Your task to perform on an android device: Clear the cart on ebay.com. Image 0: 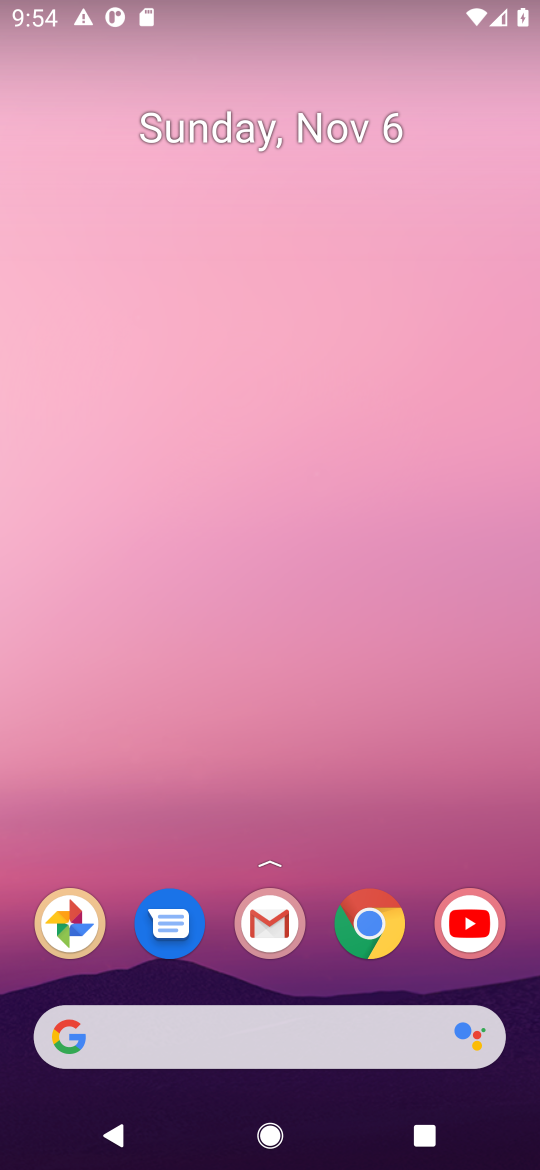
Step 0: click (363, 933)
Your task to perform on an android device: Clear the cart on ebay.com. Image 1: 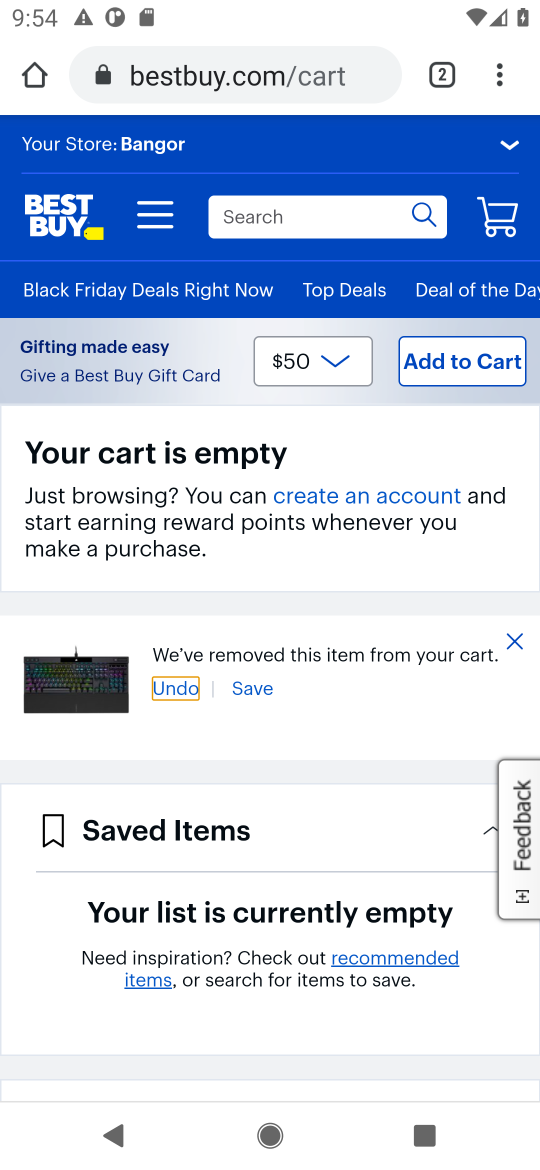
Step 1: click (172, 78)
Your task to perform on an android device: Clear the cart on ebay.com. Image 2: 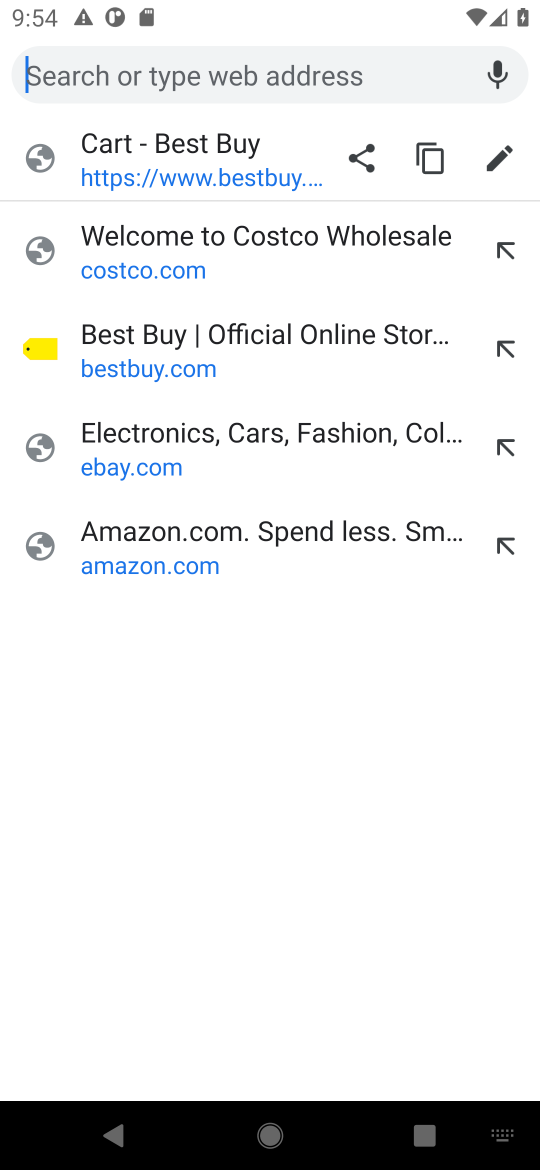
Step 2: click (145, 463)
Your task to perform on an android device: Clear the cart on ebay.com. Image 3: 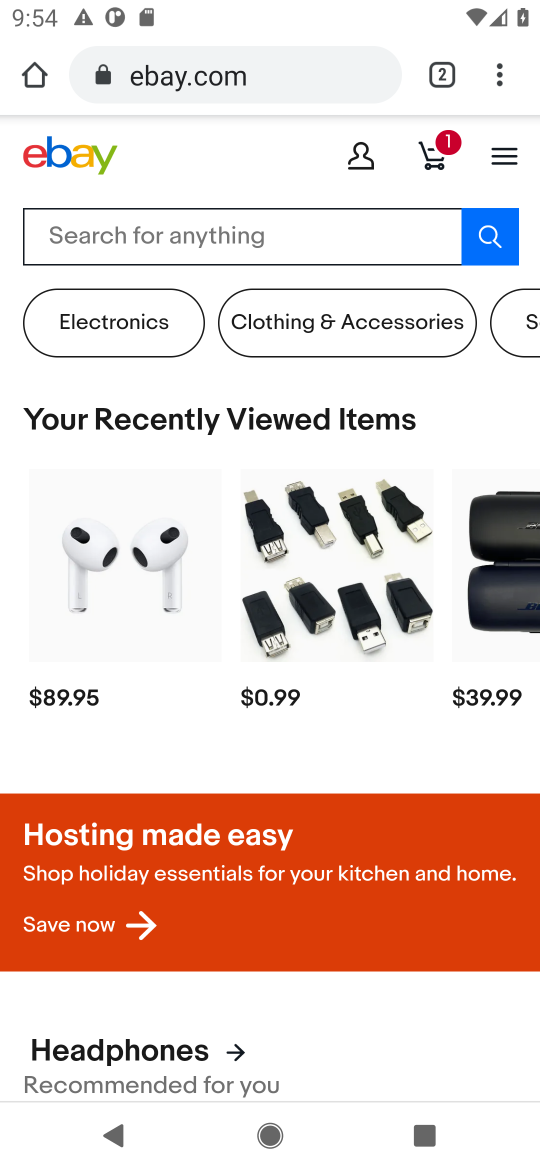
Step 3: click (444, 159)
Your task to perform on an android device: Clear the cart on ebay.com. Image 4: 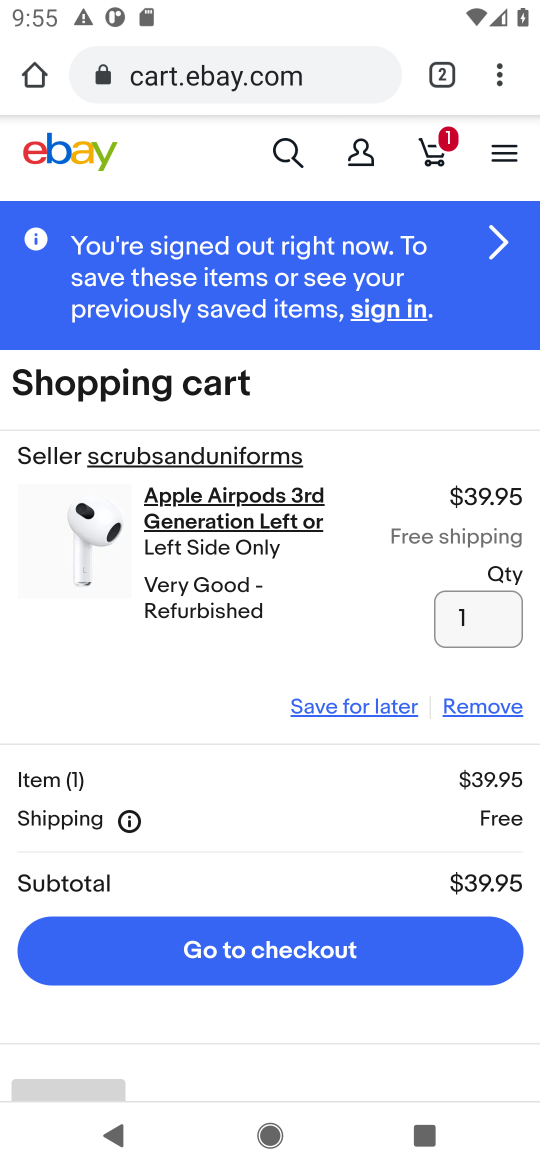
Step 4: click (453, 719)
Your task to perform on an android device: Clear the cart on ebay.com. Image 5: 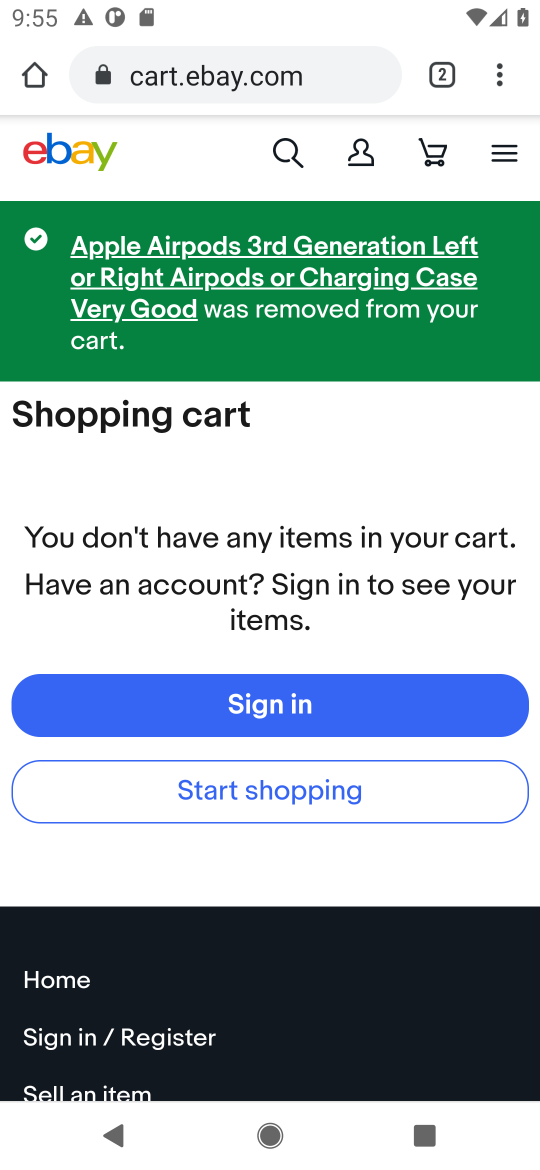
Step 5: task complete